Your task to perform on an android device: Set the phone to "Do not disturb". Image 0: 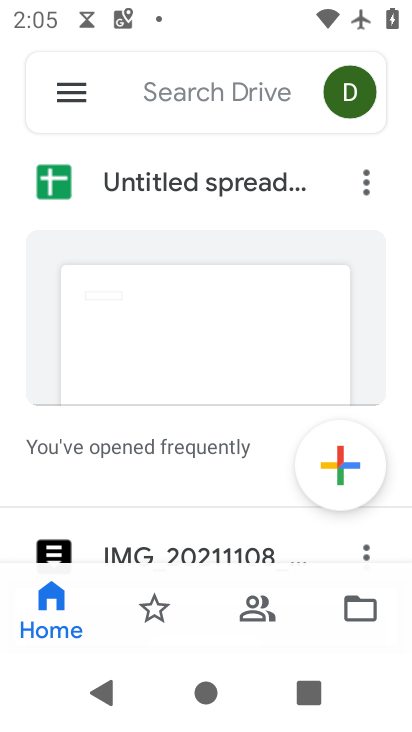
Step 0: press home button
Your task to perform on an android device: Set the phone to "Do not disturb". Image 1: 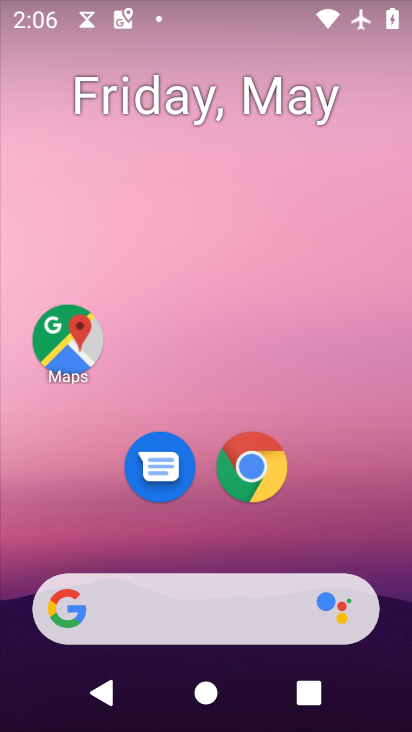
Step 1: drag from (340, 530) to (319, 36)
Your task to perform on an android device: Set the phone to "Do not disturb". Image 2: 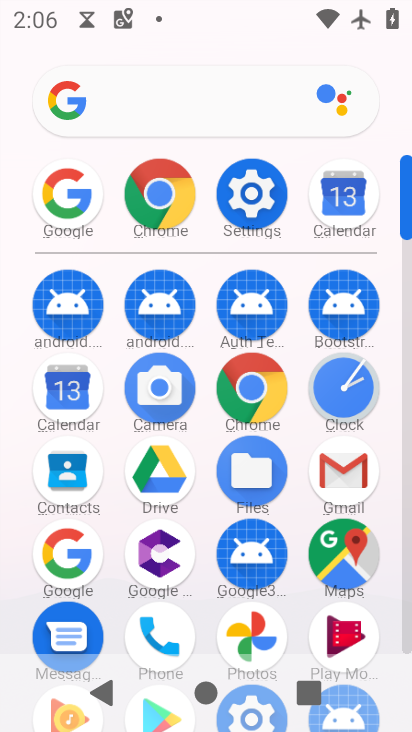
Step 2: click (247, 193)
Your task to perform on an android device: Set the phone to "Do not disturb". Image 3: 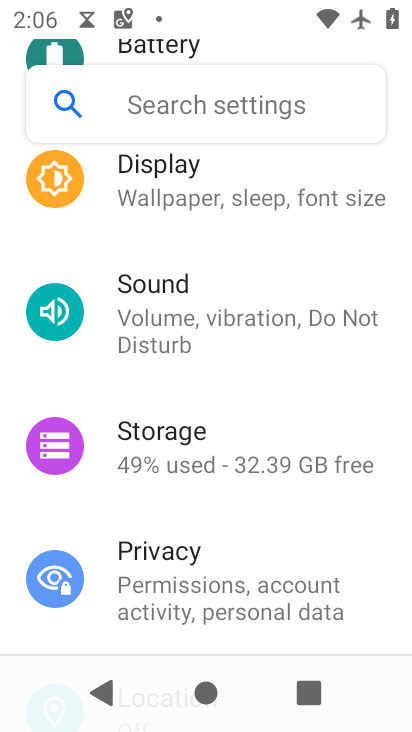
Step 3: click (171, 319)
Your task to perform on an android device: Set the phone to "Do not disturb". Image 4: 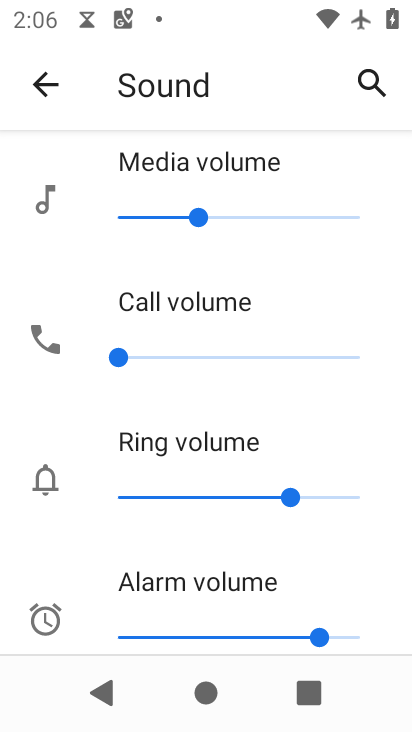
Step 4: drag from (240, 500) to (296, 283)
Your task to perform on an android device: Set the phone to "Do not disturb". Image 5: 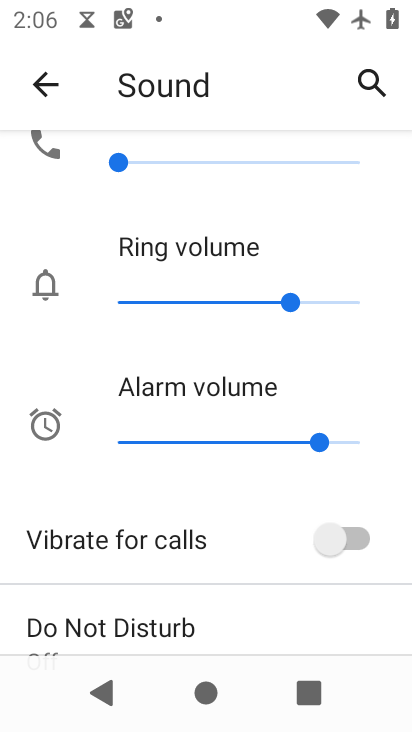
Step 5: drag from (173, 560) to (266, 377)
Your task to perform on an android device: Set the phone to "Do not disturb". Image 6: 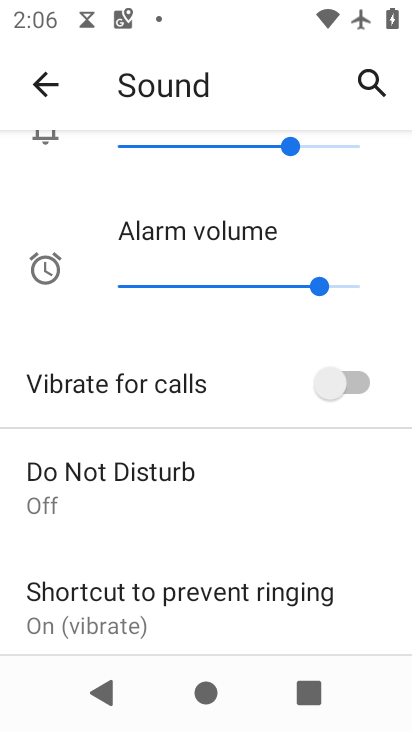
Step 6: click (125, 471)
Your task to perform on an android device: Set the phone to "Do not disturb". Image 7: 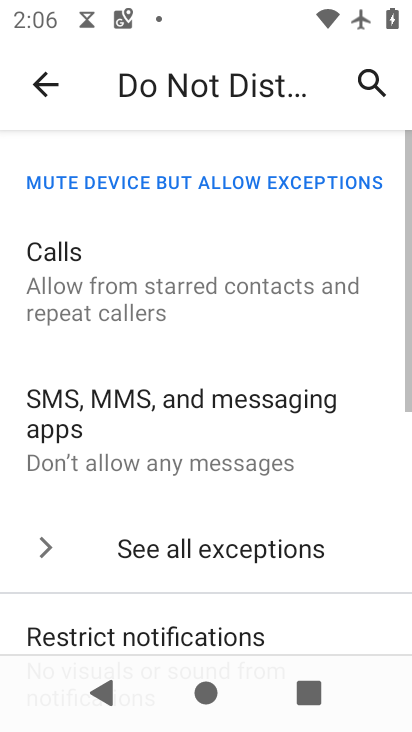
Step 7: drag from (155, 598) to (281, 300)
Your task to perform on an android device: Set the phone to "Do not disturb". Image 8: 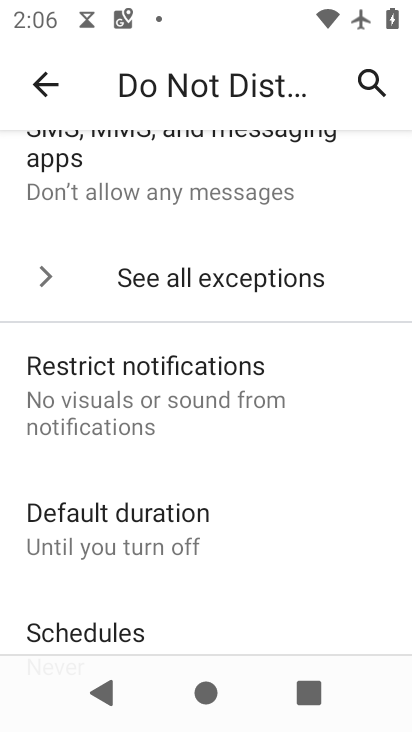
Step 8: drag from (164, 513) to (220, 285)
Your task to perform on an android device: Set the phone to "Do not disturb". Image 9: 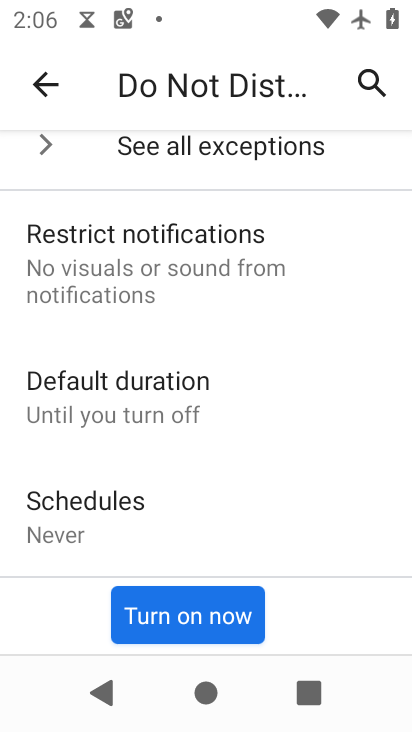
Step 9: click (179, 609)
Your task to perform on an android device: Set the phone to "Do not disturb". Image 10: 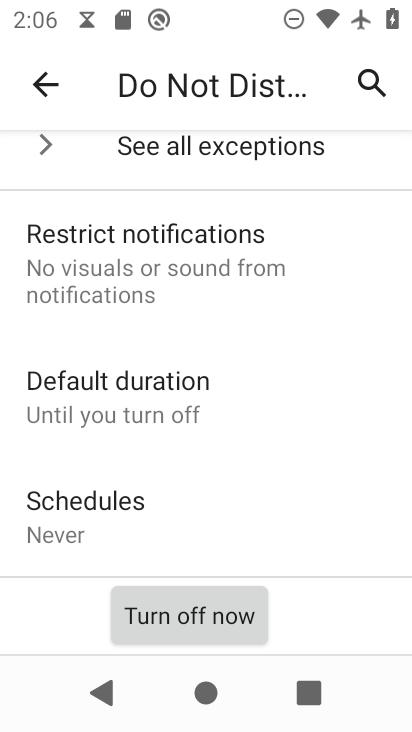
Step 10: task complete